Your task to perform on an android device: toggle location history Image 0: 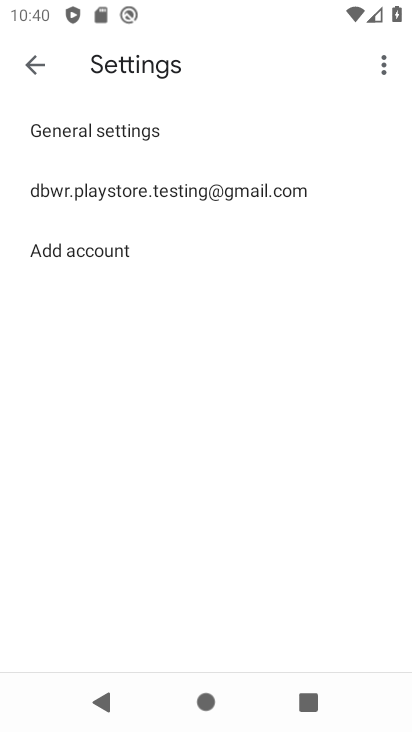
Step 0: press home button
Your task to perform on an android device: toggle location history Image 1: 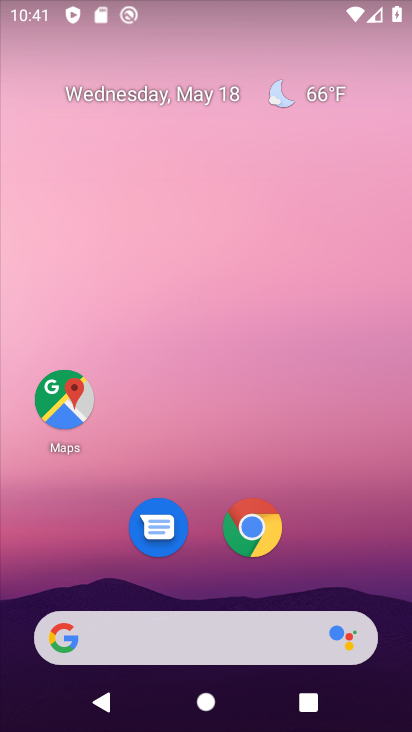
Step 1: click (71, 399)
Your task to perform on an android device: toggle location history Image 2: 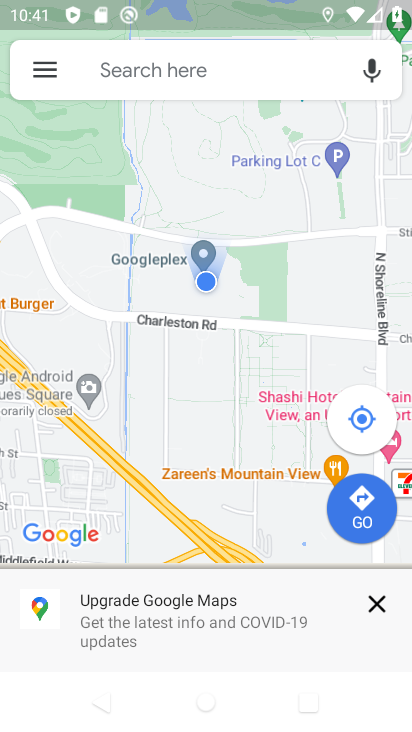
Step 2: click (53, 65)
Your task to perform on an android device: toggle location history Image 3: 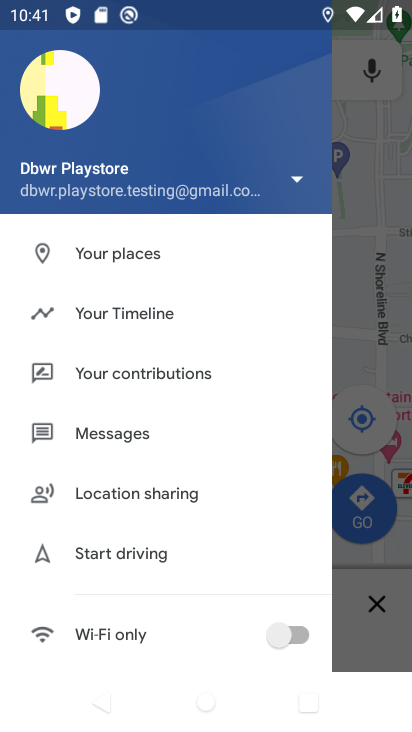
Step 3: click (208, 304)
Your task to perform on an android device: toggle location history Image 4: 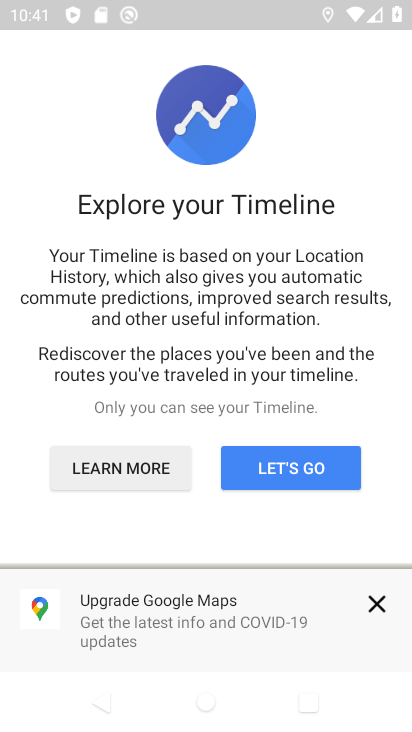
Step 4: click (381, 602)
Your task to perform on an android device: toggle location history Image 5: 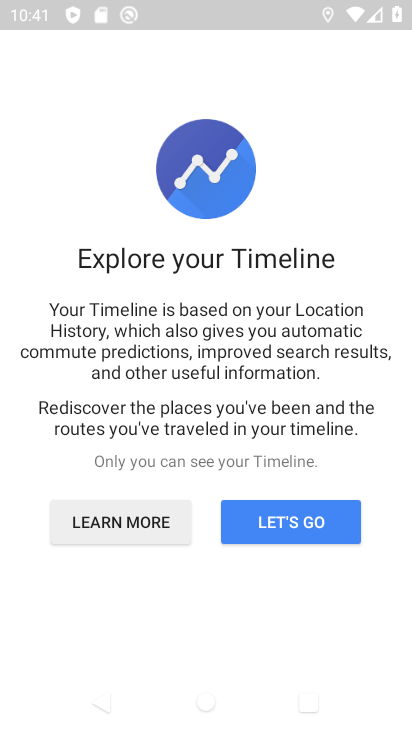
Step 5: drag from (344, 591) to (320, 280)
Your task to perform on an android device: toggle location history Image 6: 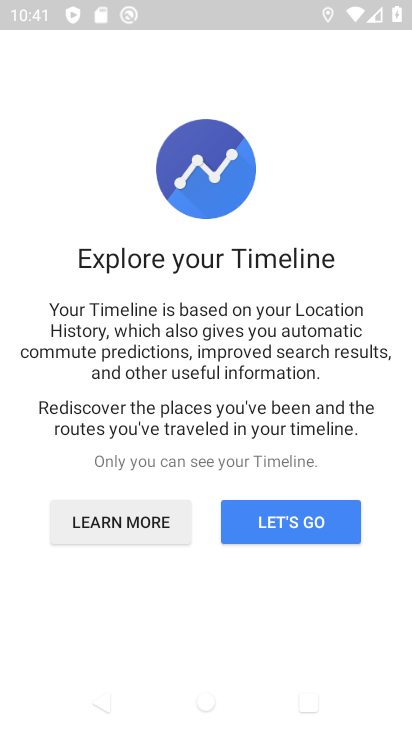
Step 6: click (313, 529)
Your task to perform on an android device: toggle location history Image 7: 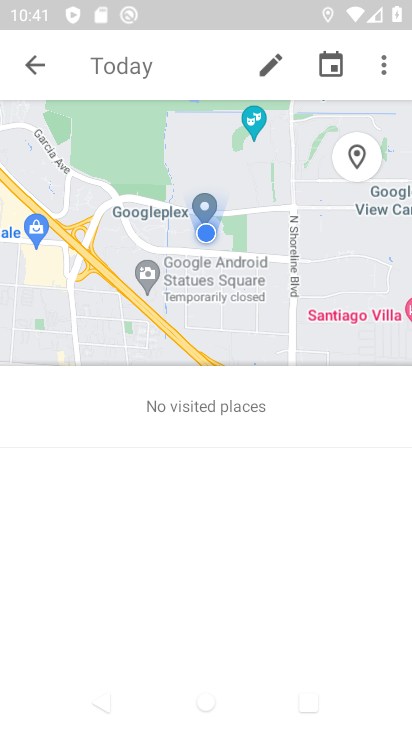
Step 7: click (378, 82)
Your task to perform on an android device: toggle location history Image 8: 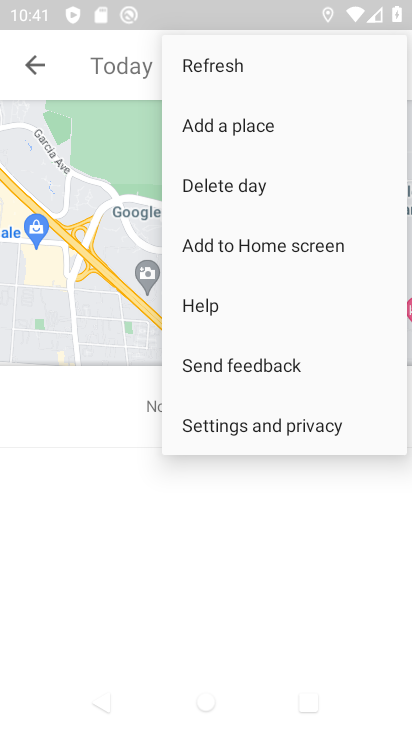
Step 8: click (318, 425)
Your task to perform on an android device: toggle location history Image 9: 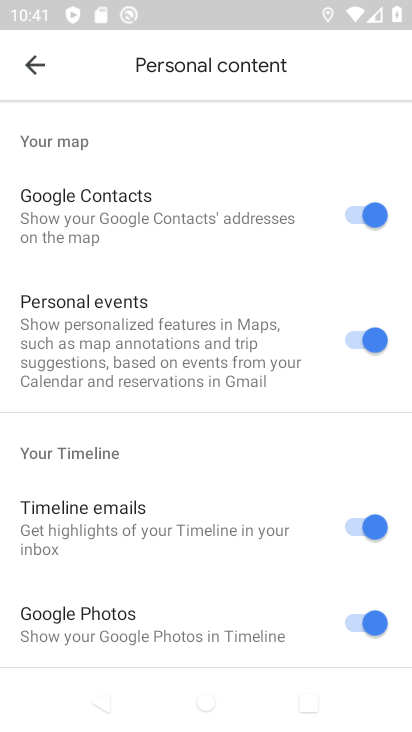
Step 9: drag from (249, 622) to (222, 111)
Your task to perform on an android device: toggle location history Image 10: 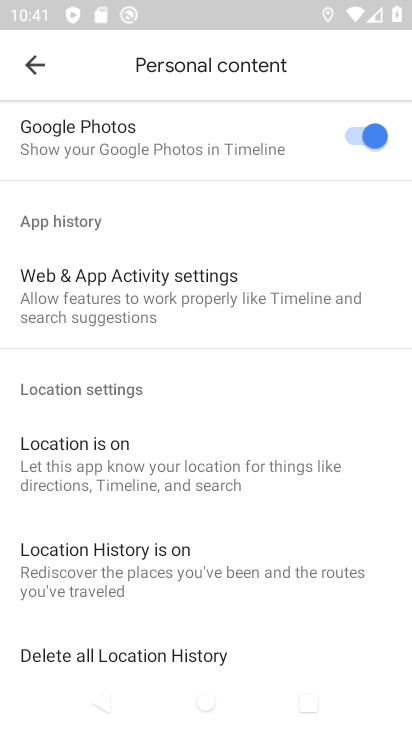
Step 10: click (246, 578)
Your task to perform on an android device: toggle location history Image 11: 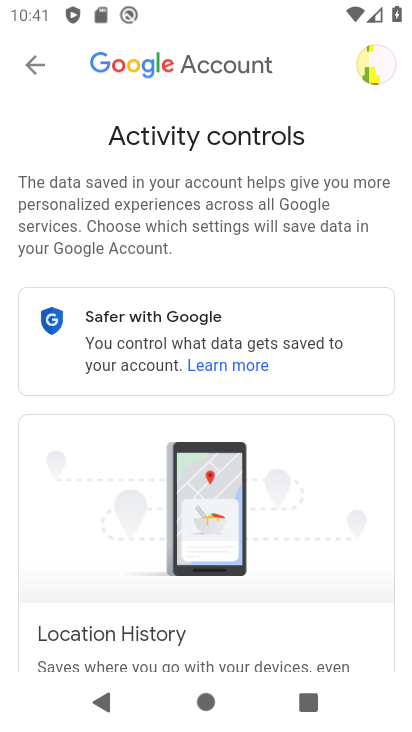
Step 11: drag from (324, 629) to (276, 75)
Your task to perform on an android device: toggle location history Image 12: 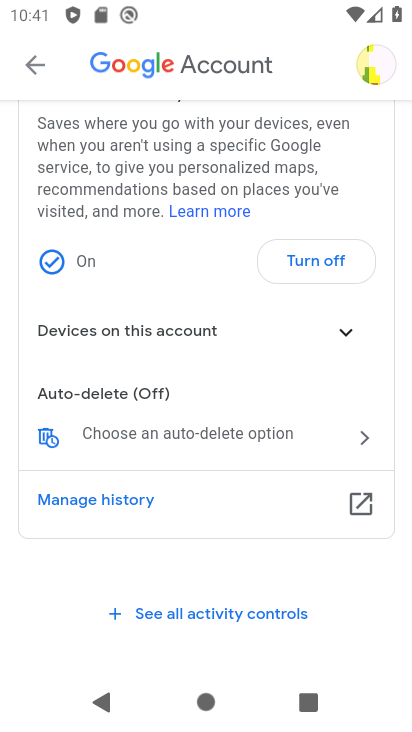
Step 12: click (316, 268)
Your task to perform on an android device: toggle location history Image 13: 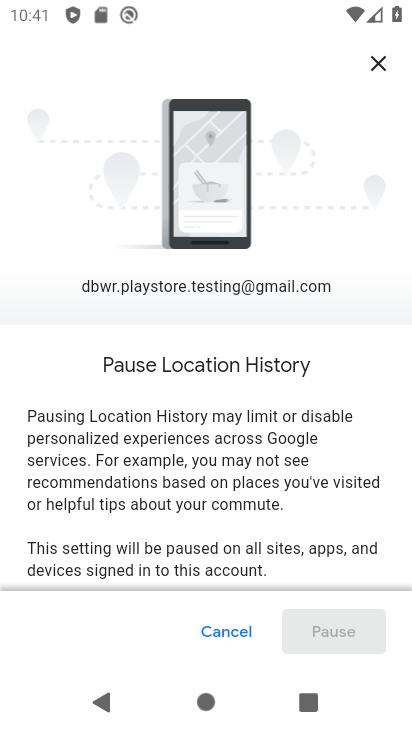
Step 13: drag from (346, 560) to (279, 99)
Your task to perform on an android device: toggle location history Image 14: 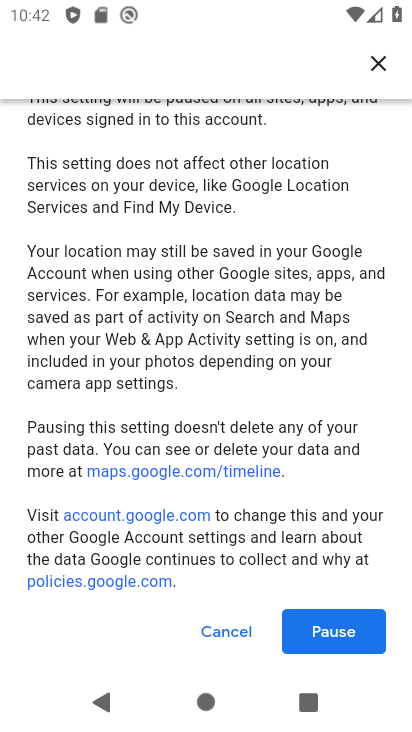
Step 14: click (327, 515)
Your task to perform on an android device: toggle location history Image 15: 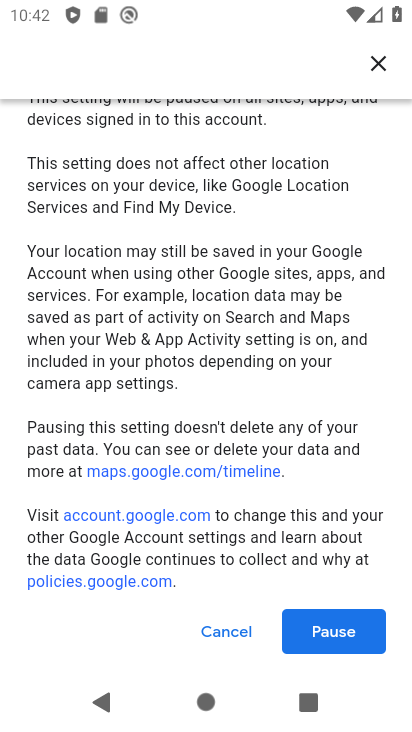
Step 15: drag from (327, 515) to (278, 166)
Your task to perform on an android device: toggle location history Image 16: 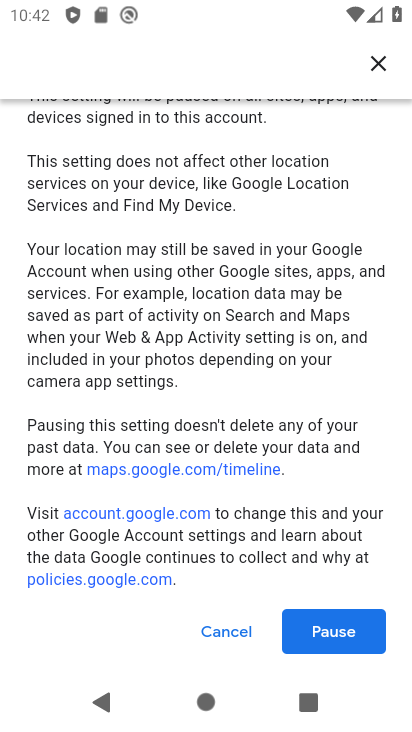
Step 16: click (346, 629)
Your task to perform on an android device: toggle location history Image 17: 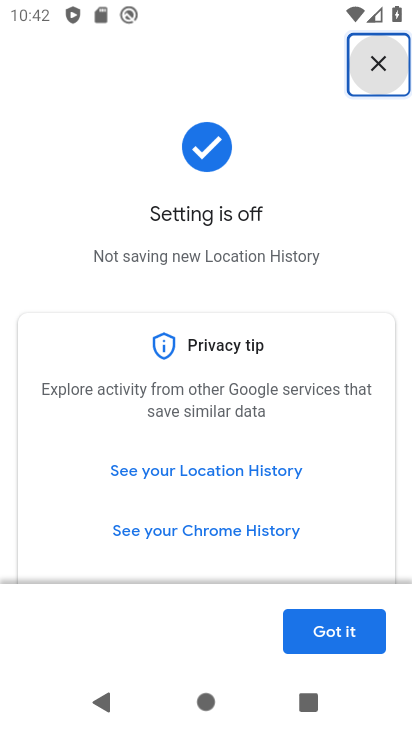
Step 17: click (346, 629)
Your task to perform on an android device: toggle location history Image 18: 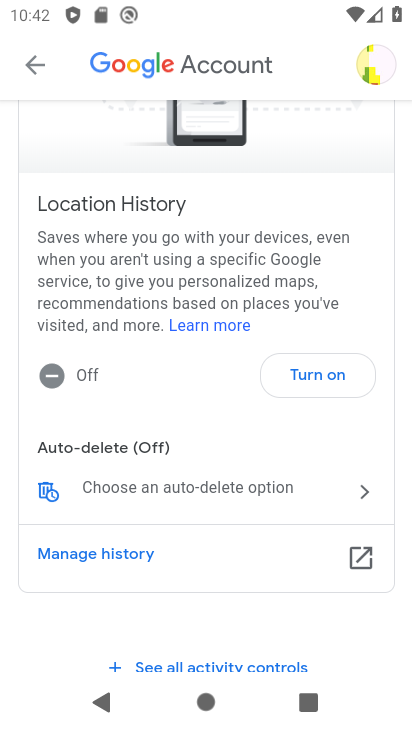
Step 18: task complete